Your task to perform on an android device: set the timer Image 0: 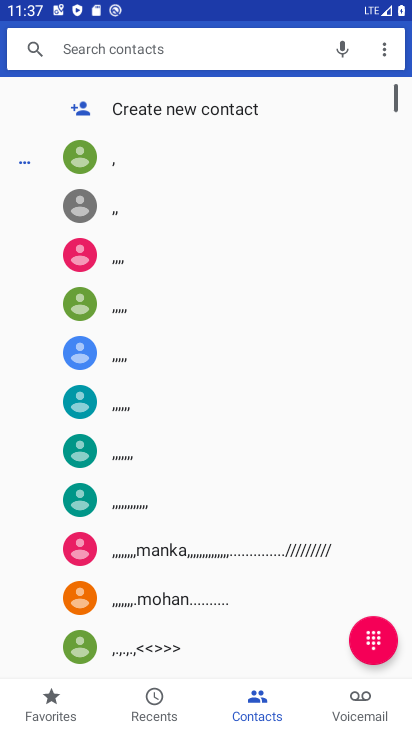
Step 0: press home button
Your task to perform on an android device: set the timer Image 1: 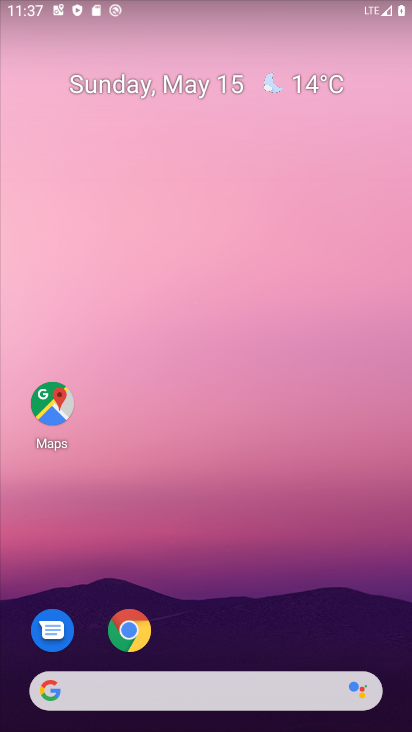
Step 1: drag from (96, 483) to (252, 189)
Your task to perform on an android device: set the timer Image 2: 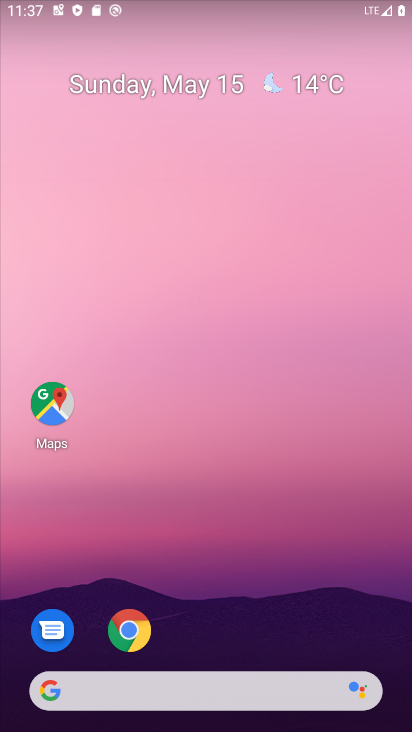
Step 2: drag from (74, 545) to (300, 27)
Your task to perform on an android device: set the timer Image 3: 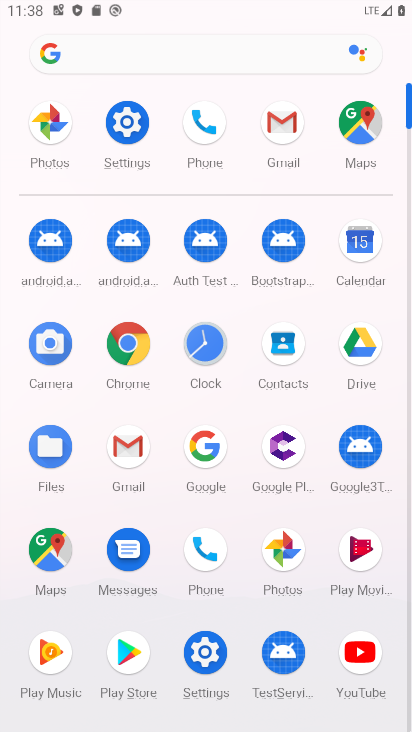
Step 3: click (205, 354)
Your task to perform on an android device: set the timer Image 4: 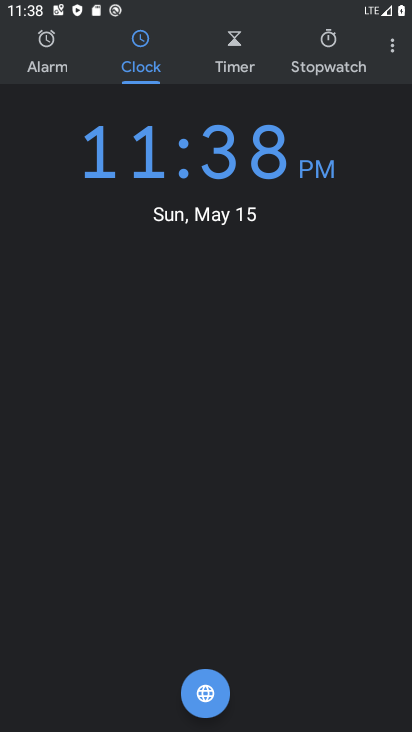
Step 4: click (246, 49)
Your task to perform on an android device: set the timer Image 5: 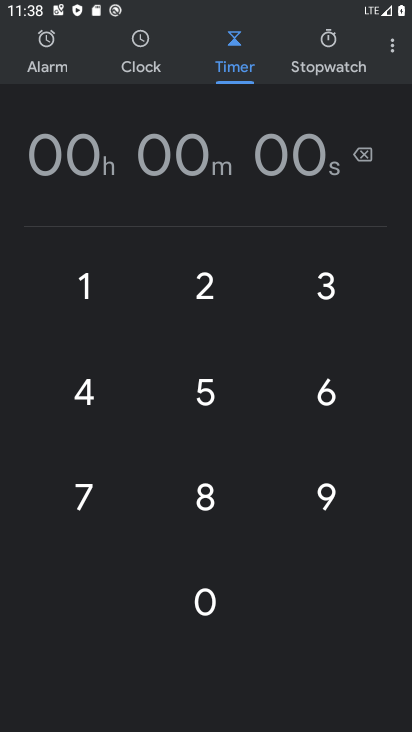
Step 5: click (211, 607)
Your task to perform on an android device: set the timer Image 6: 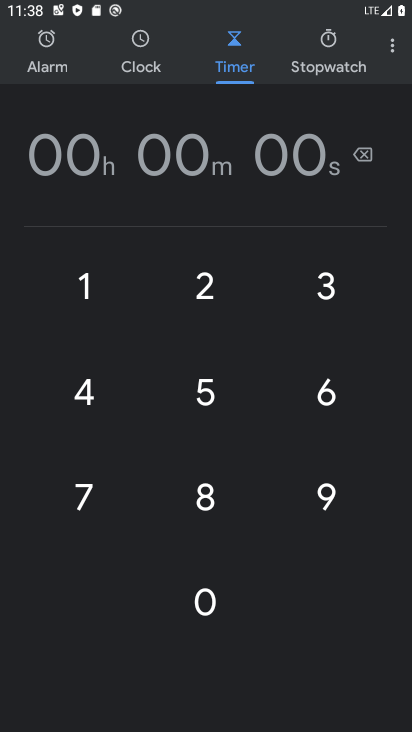
Step 6: click (82, 295)
Your task to perform on an android device: set the timer Image 7: 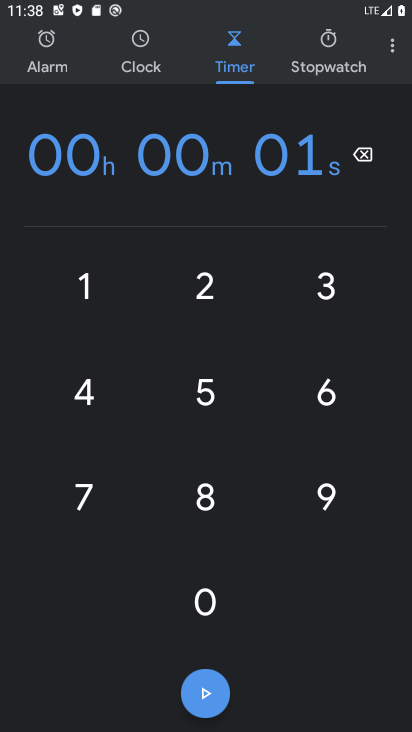
Step 7: click (215, 606)
Your task to perform on an android device: set the timer Image 8: 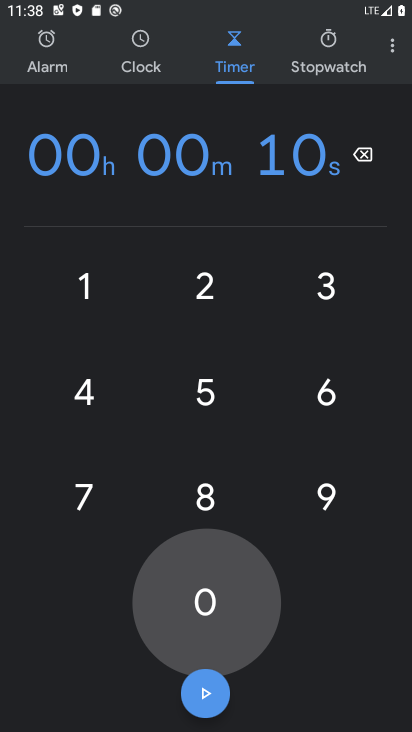
Step 8: click (215, 606)
Your task to perform on an android device: set the timer Image 9: 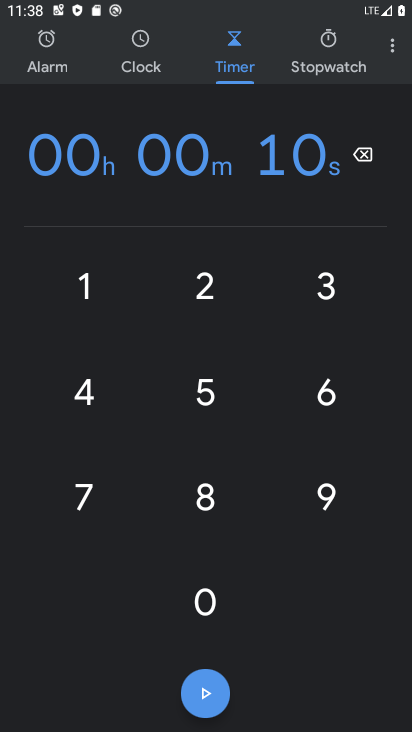
Step 9: click (215, 606)
Your task to perform on an android device: set the timer Image 10: 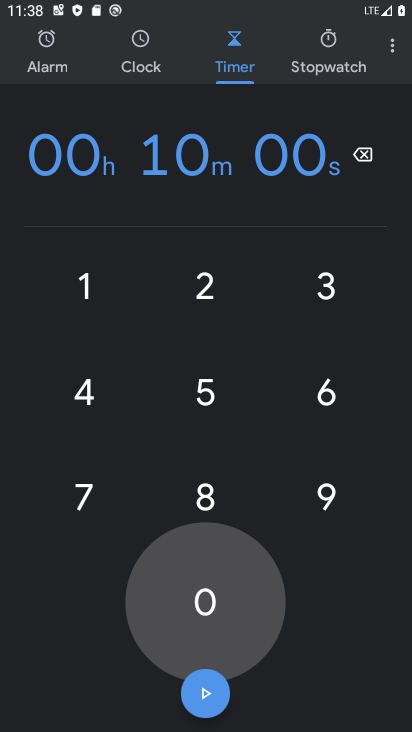
Step 10: click (215, 606)
Your task to perform on an android device: set the timer Image 11: 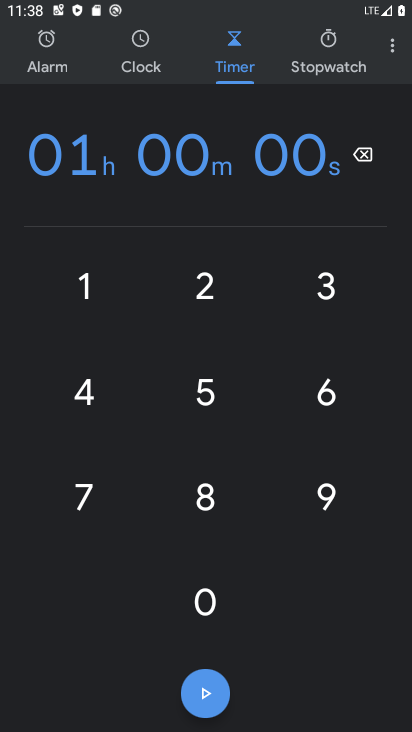
Step 11: click (216, 683)
Your task to perform on an android device: set the timer Image 12: 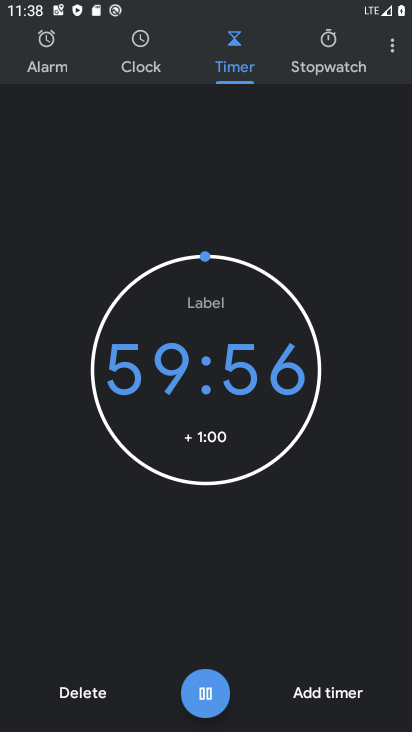
Step 12: task complete